Your task to perform on an android device: Open wifi settings Image 0: 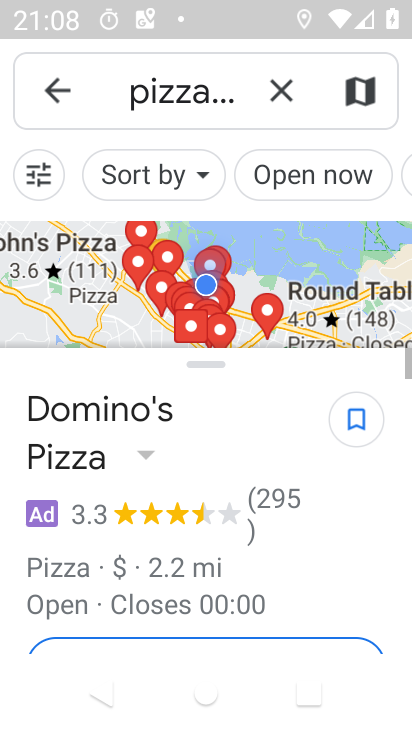
Step 0: press home button
Your task to perform on an android device: Open wifi settings Image 1: 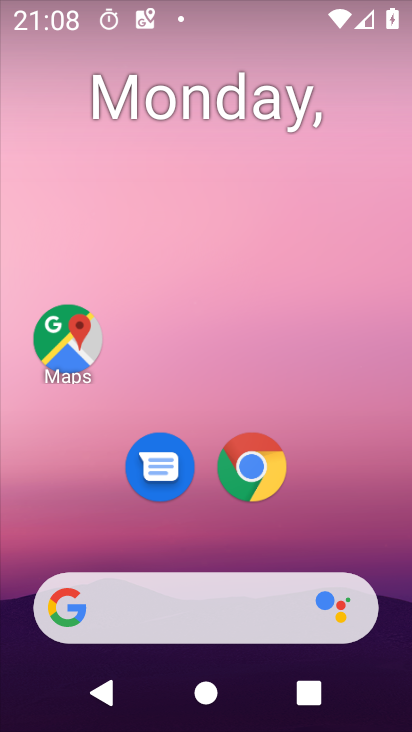
Step 1: drag from (206, 500) to (293, 9)
Your task to perform on an android device: Open wifi settings Image 2: 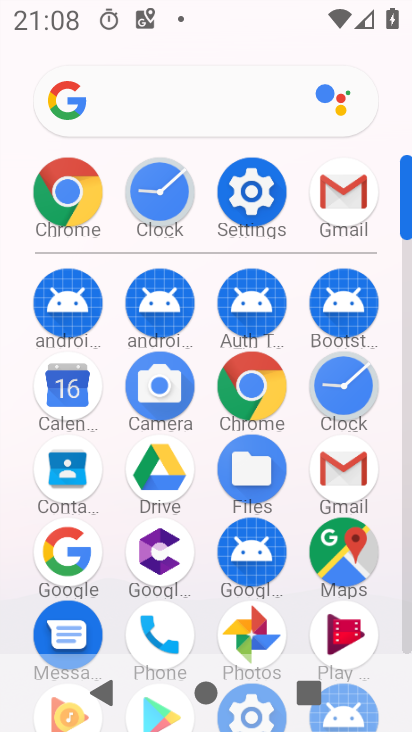
Step 2: click (247, 198)
Your task to perform on an android device: Open wifi settings Image 3: 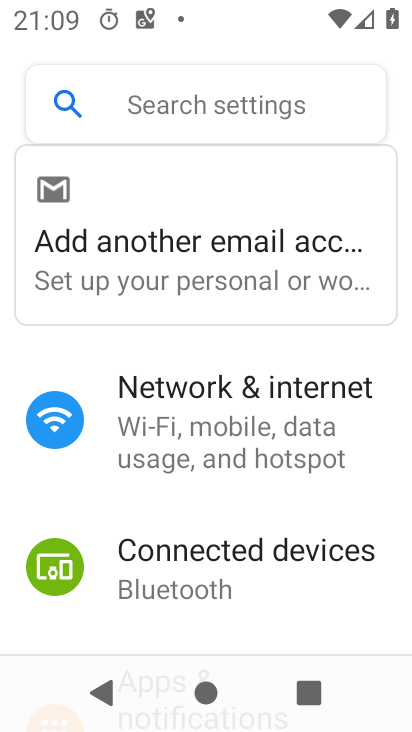
Step 3: click (201, 466)
Your task to perform on an android device: Open wifi settings Image 4: 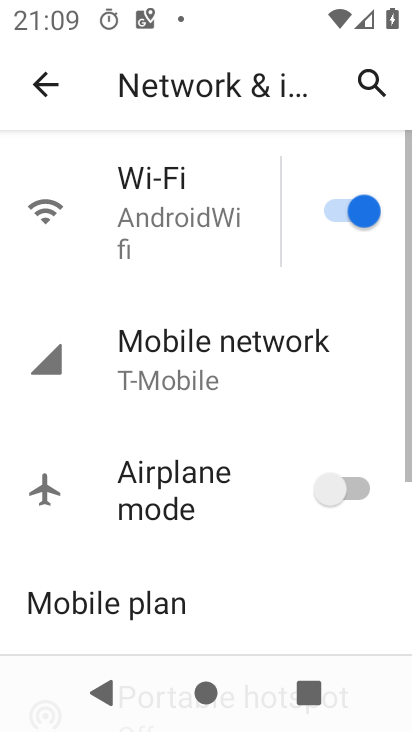
Step 4: click (212, 232)
Your task to perform on an android device: Open wifi settings Image 5: 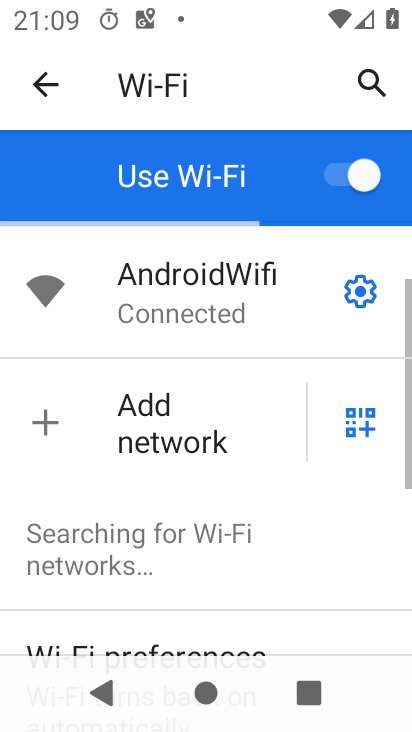
Step 5: task complete